Your task to perform on an android device: Is it going to rain tomorrow? Image 0: 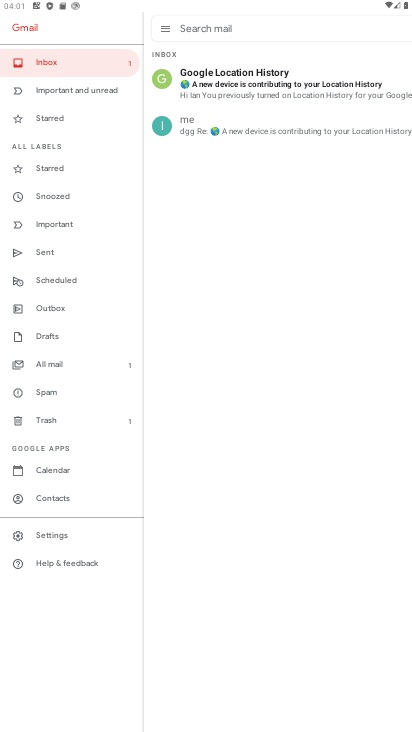
Step 0: press home button
Your task to perform on an android device: Is it going to rain tomorrow? Image 1: 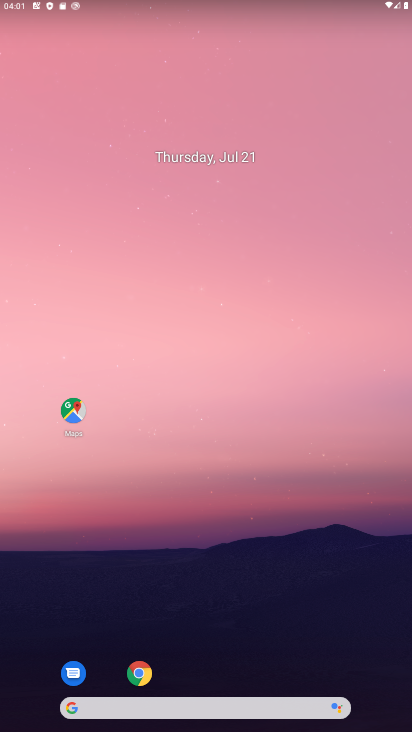
Step 1: drag from (287, 585) to (320, 61)
Your task to perform on an android device: Is it going to rain tomorrow? Image 2: 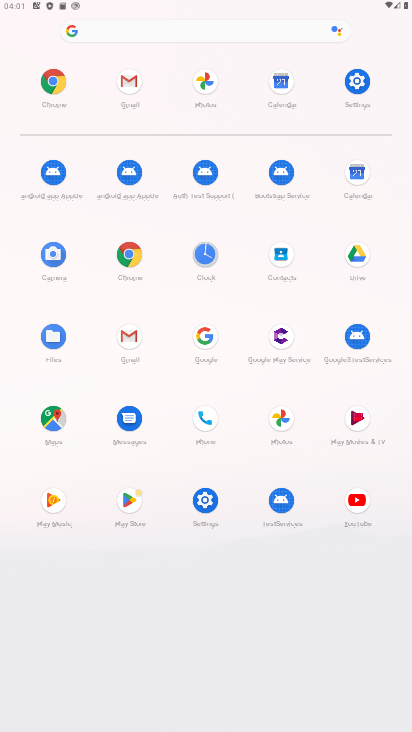
Step 2: click (124, 259)
Your task to perform on an android device: Is it going to rain tomorrow? Image 3: 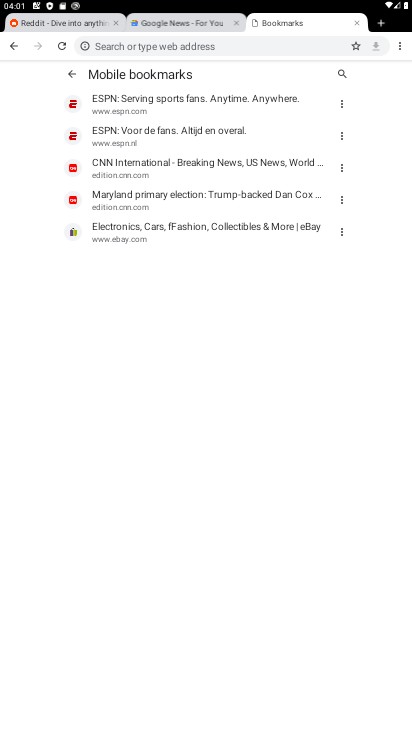
Step 3: click (209, 49)
Your task to perform on an android device: Is it going to rain tomorrow? Image 4: 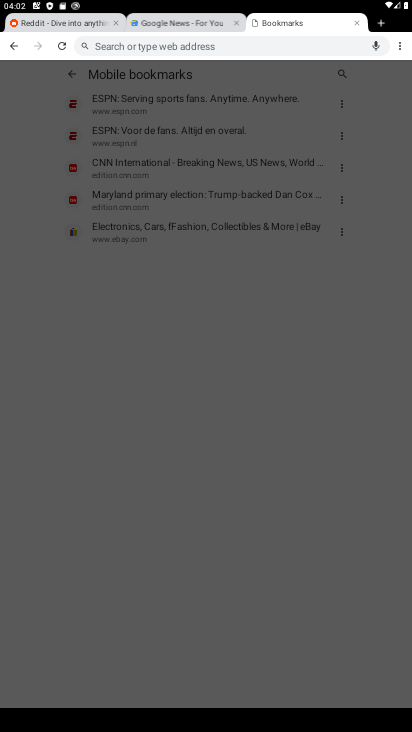
Step 4: type "weather"
Your task to perform on an android device: Is it going to rain tomorrow? Image 5: 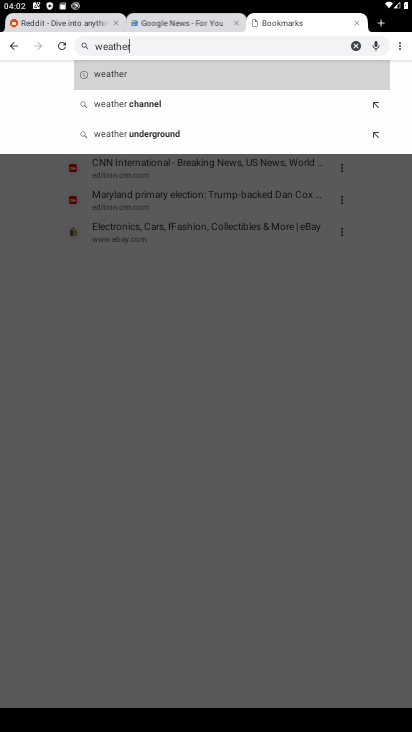
Step 5: click (122, 68)
Your task to perform on an android device: Is it going to rain tomorrow? Image 6: 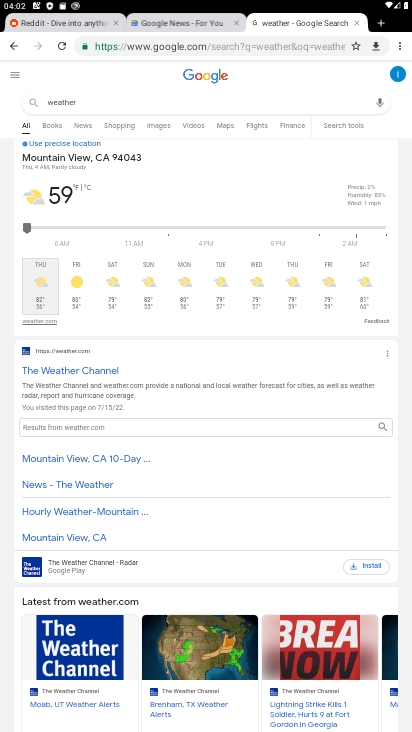
Step 6: click (81, 265)
Your task to perform on an android device: Is it going to rain tomorrow? Image 7: 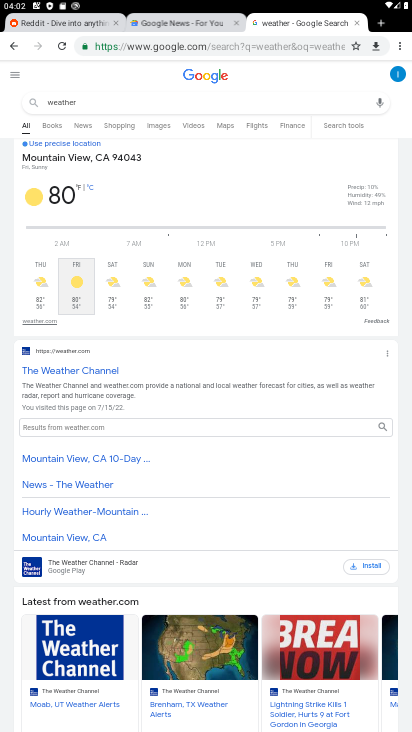
Step 7: task complete